Your task to perform on an android device: change the clock display to digital Image 0: 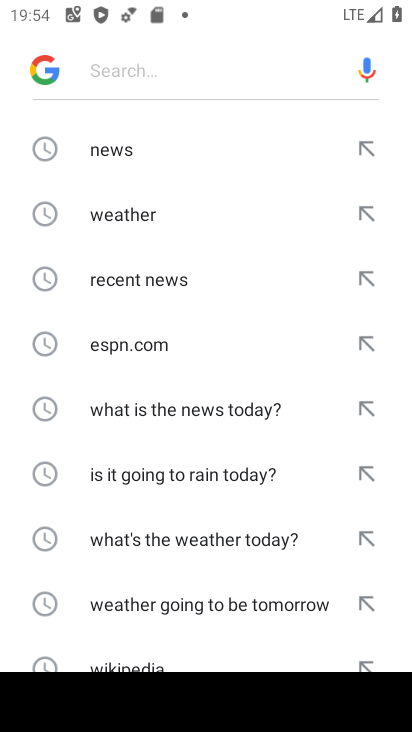
Step 0: press home button
Your task to perform on an android device: change the clock display to digital Image 1: 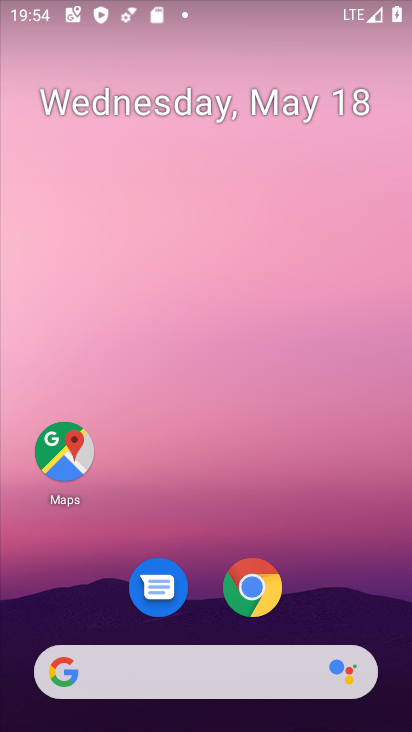
Step 1: drag from (193, 625) to (350, 0)
Your task to perform on an android device: change the clock display to digital Image 2: 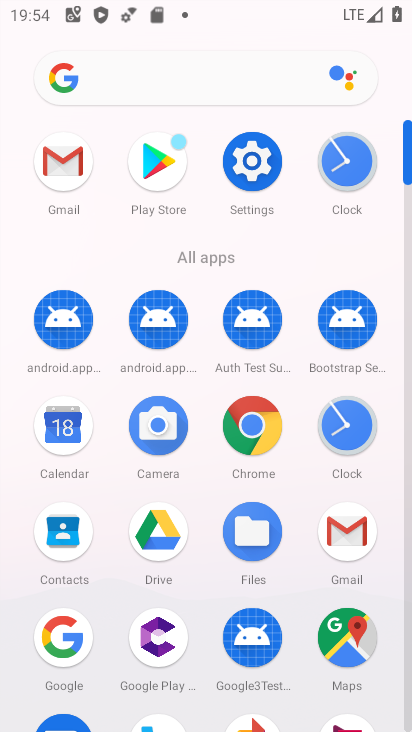
Step 2: click (349, 148)
Your task to perform on an android device: change the clock display to digital Image 3: 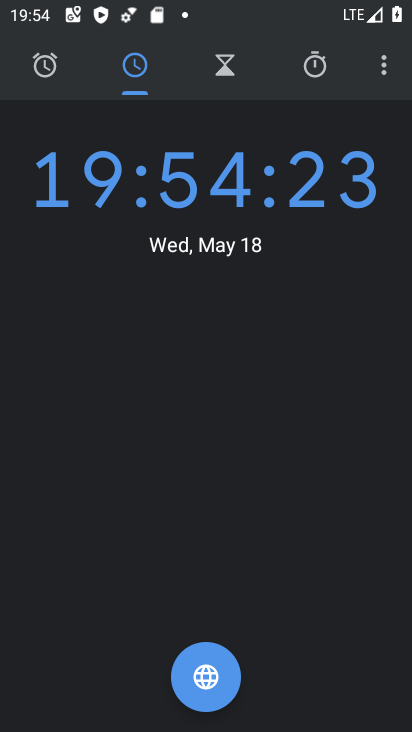
Step 3: click (376, 73)
Your task to perform on an android device: change the clock display to digital Image 4: 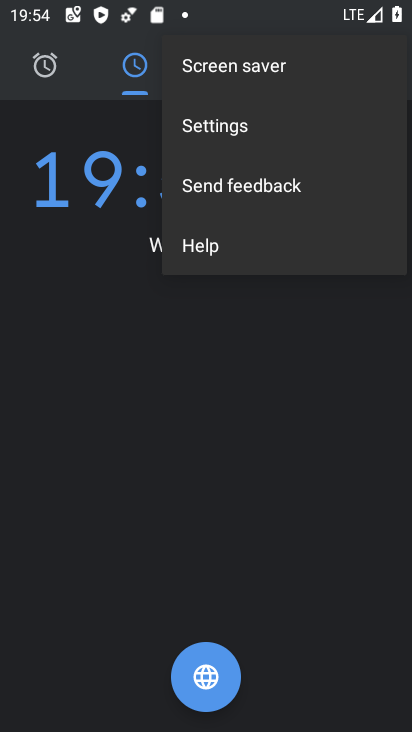
Step 4: click (279, 119)
Your task to perform on an android device: change the clock display to digital Image 5: 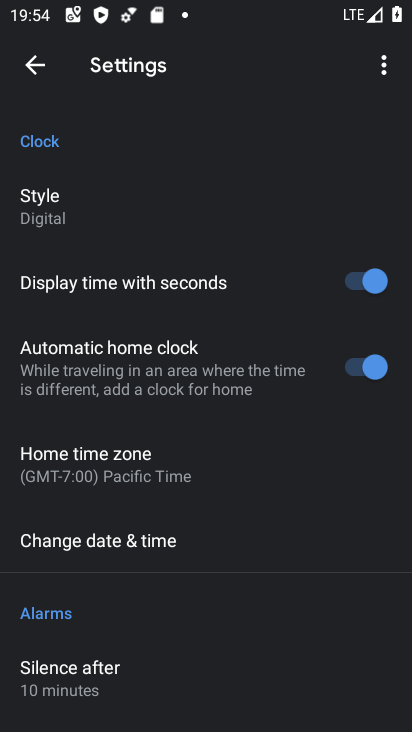
Step 5: task complete